Your task to perform on an android device: Go to calendar. Show me events next week Image 0: 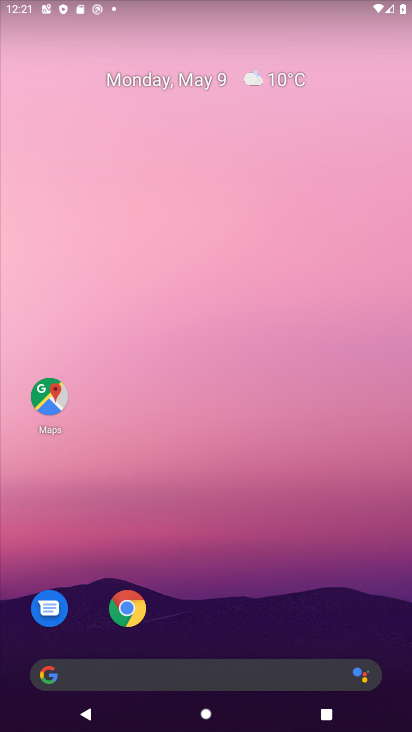
Step 0: drag from (239, 598) to (242, 131)
Your task to perform on an android device: Go to calendar. Show me events next week Image 1: 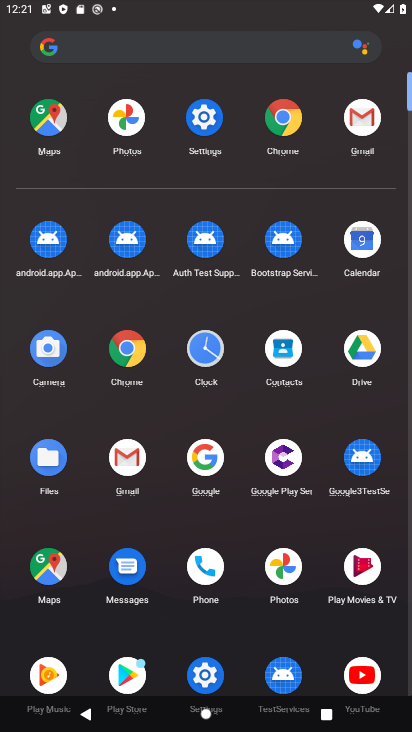
Step 1: click (344, 271)
Your task to perform on an android device: Go to calendar. Show me events next week Image 2: 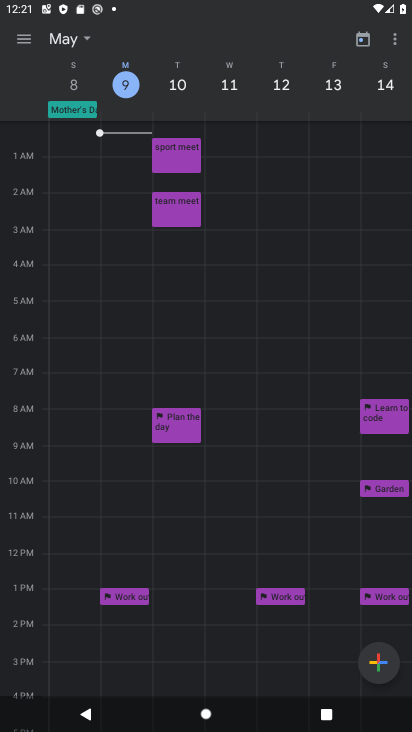
Step 2: click (33, 39)
Your task to perform on an android device: Go to calendar. Show me events next week Image 3: 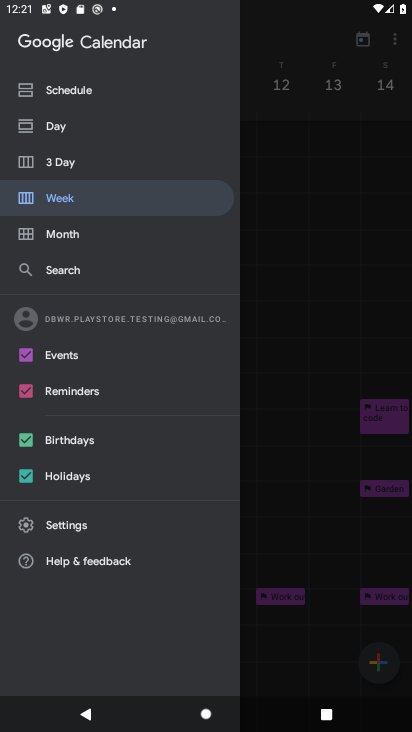
Step 3: click (82, 228)
Your task to perform on an android device: Go to calendar. Show me events next week Image 4: 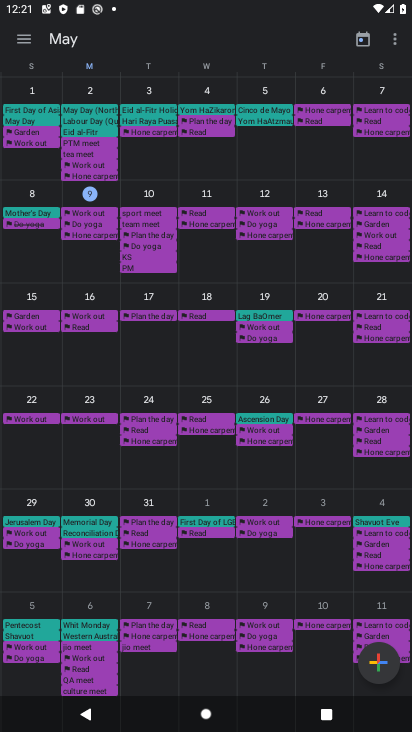
Step 4: task complete